Your task to perform on an android device: toggle priority inbox in the gmail app Image 0: 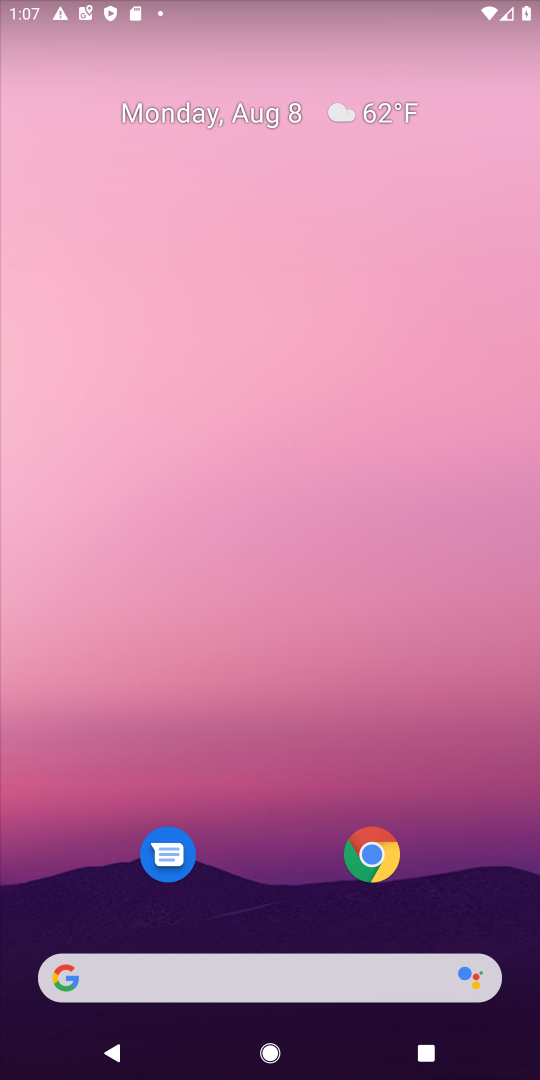
Step 0: press home button
Your task to perform on an android device: toggle priority inbox in the gmail app Image 1: 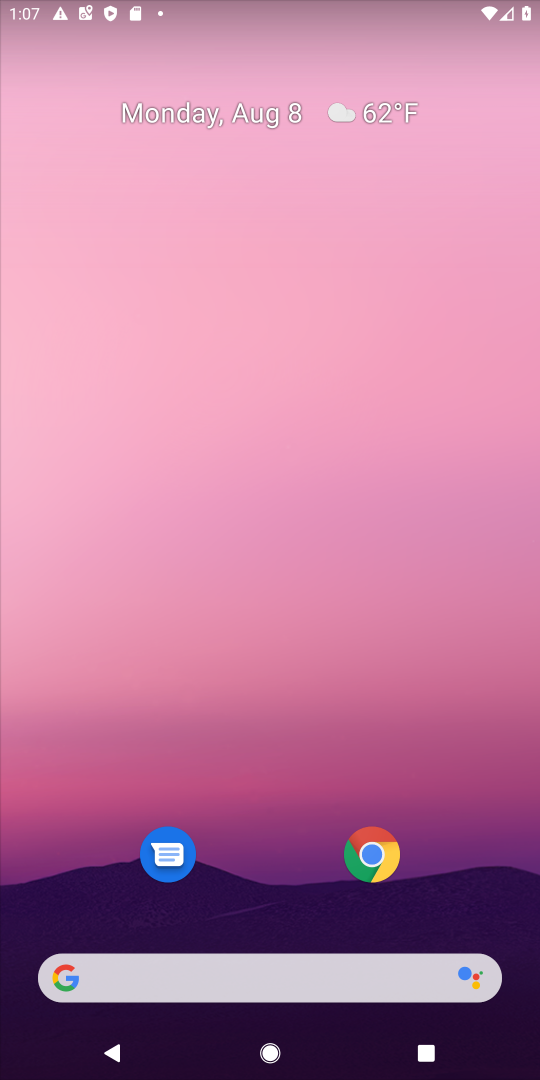
Step 1: drag from (282, 843) to (315, 91)
Your task to perform on an android device: toggle priority inbox in the gmail app Image 2: 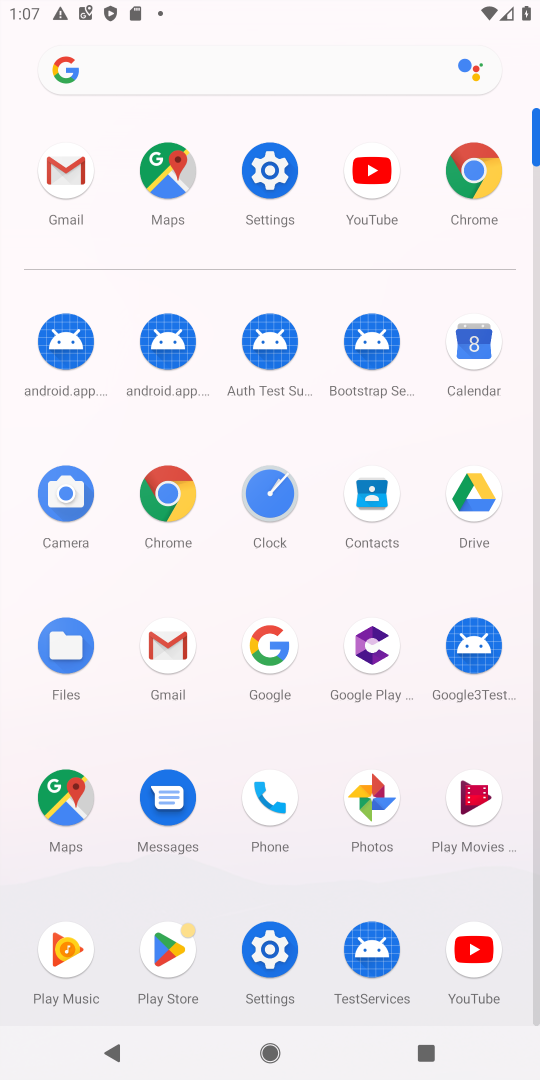
Step 2: click (55, 172)
Your task to perform on an android device: toggle priority inbox in the gmail app Image 3: 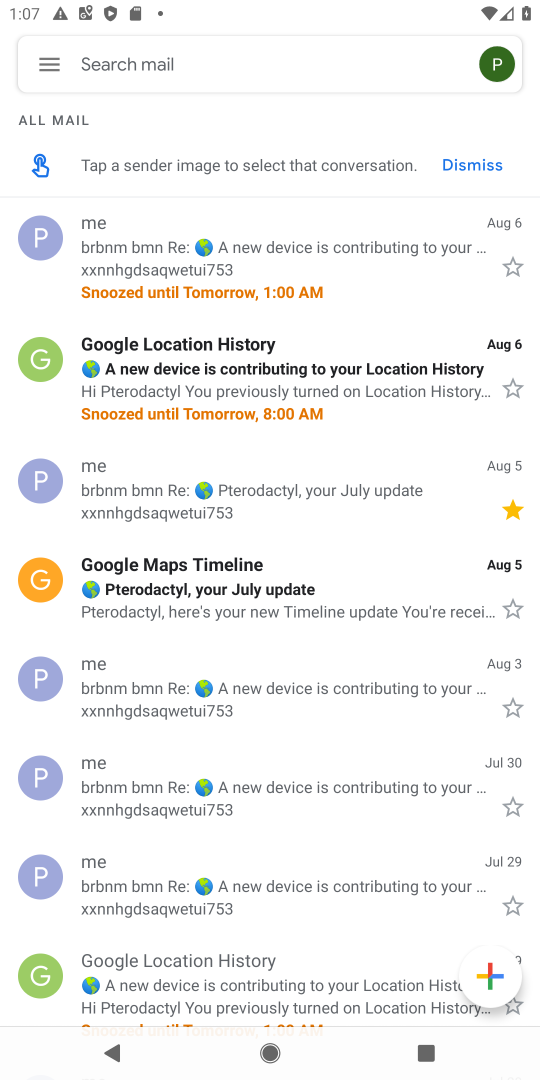
Step 3: click (50, 60)
Your task to perform on an android device: toggle priority inbox in the gmail app Image 4: 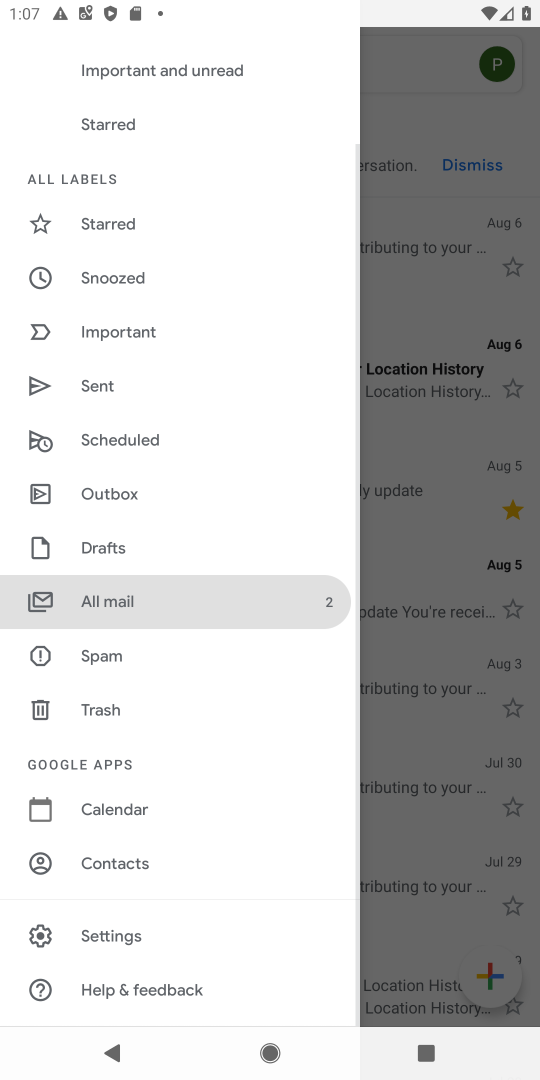
Step 4: click (110, 943)
Your task to perform on an android device: toggle priority inbox in the gmail app Image 5: 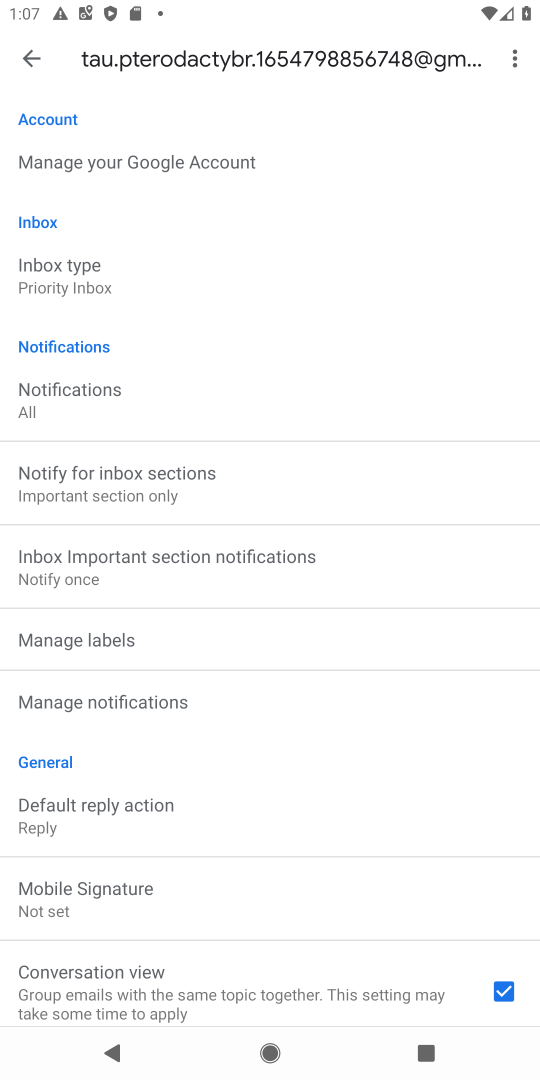
Step 5: click (81, 272)
Your task to perform on an android device: toggle priority inbox in the gmail app Image 6: 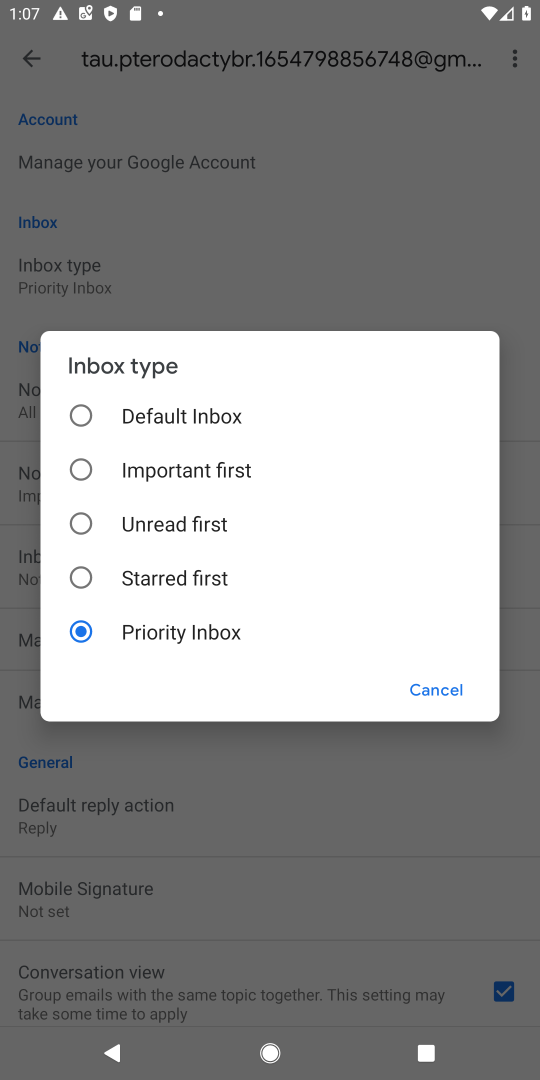
Step 6: click (91, 417)
Your task to perform on an android device: toggle priority inbox in the gmail app Image 7: 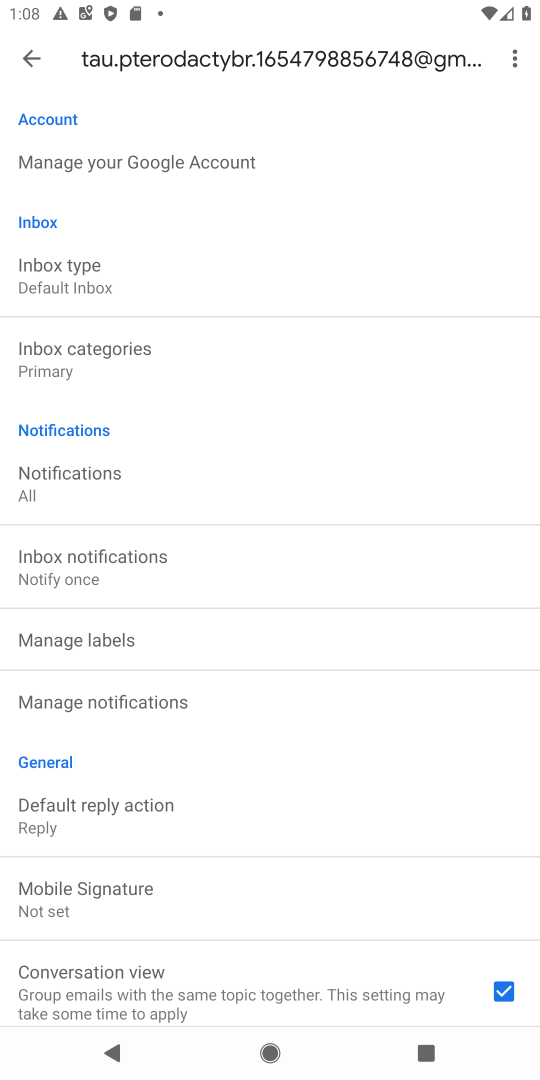
Step 7: task complete